Your task to perform on an android device: Go to location settings Image 0: 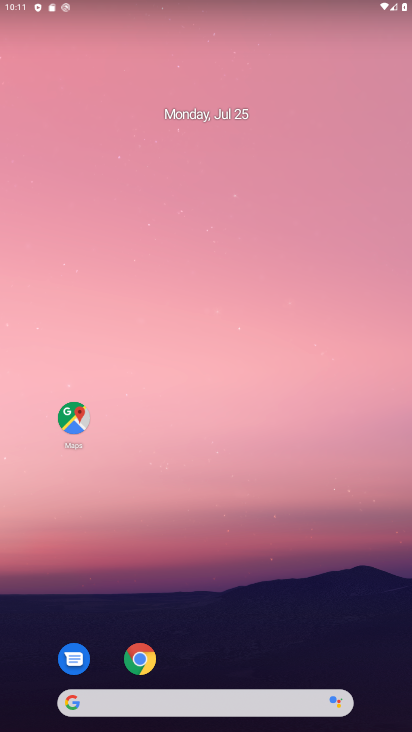
Step 0: drag from (238, 688) to (211, 90)
Your task to perform on an android device: Go to location settings Image 1: 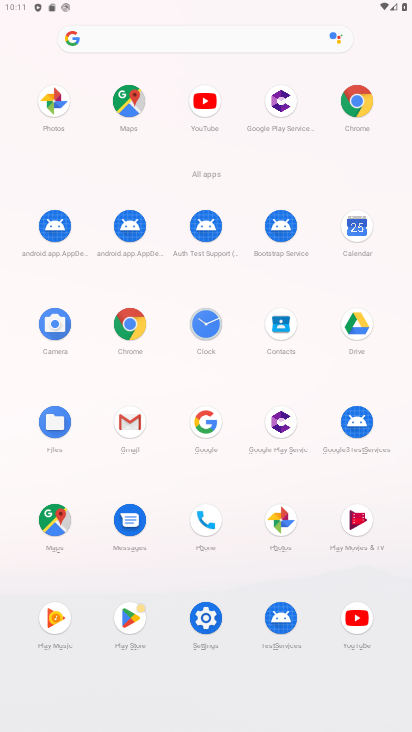
Step 1: click (223, 622)
Your task to perform on an android device: Go to location settings Image 2: 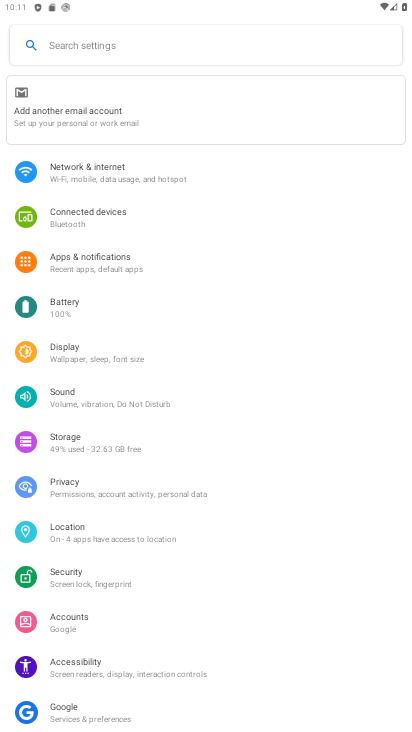
Step 2: drag from (118, 628) to (117, 194)
Your task to perform on an android device: Go to location settings Image 3: 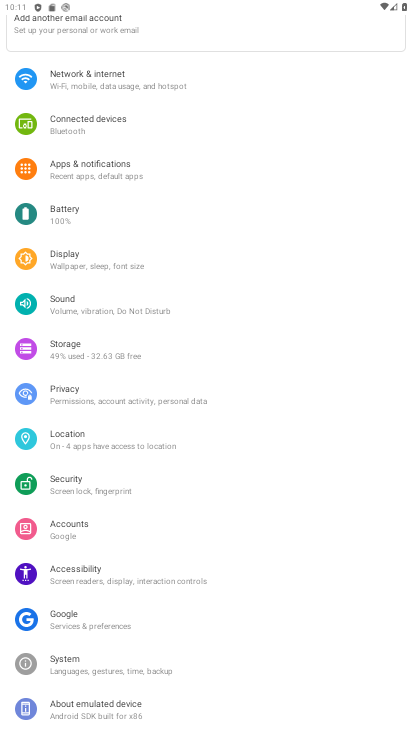
Step 3: click (79, 432)
Your task to perform on an android device: Go to location settings Image 4: 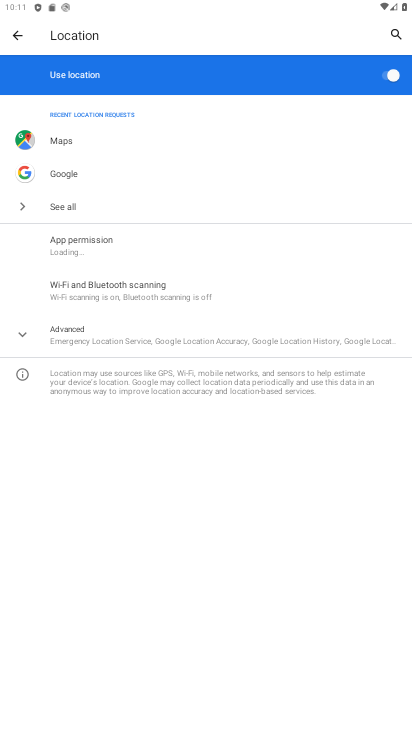
Step 4: task complete